Your task to perform on an android device: See recent photos Image 0: 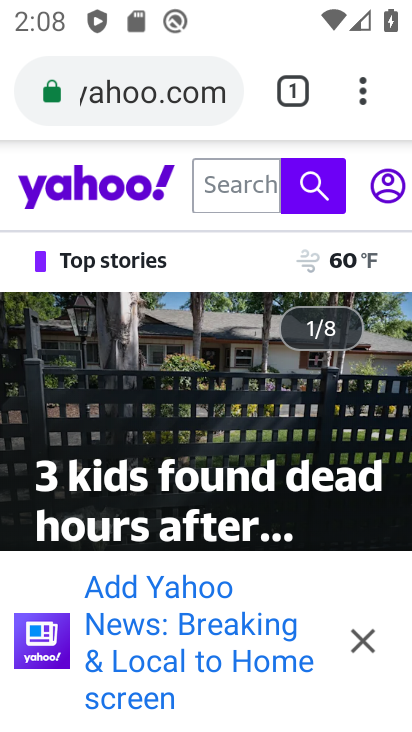
Step 0: press back button
Your task to perform on an android device: See recent photos Image 1: 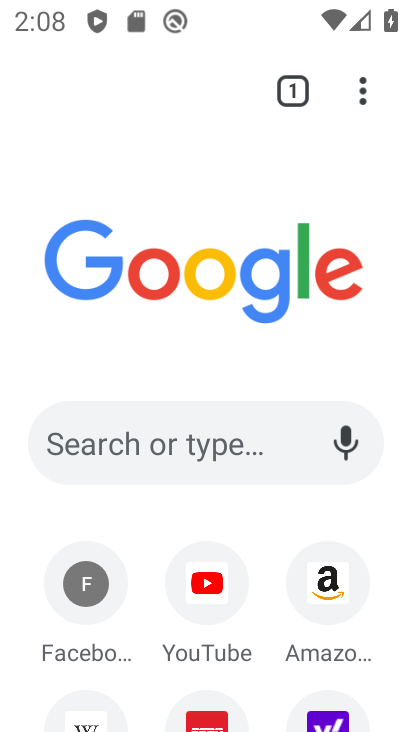
Step 1: press home button
Your task to perform on an android device: See recent photos Image 2: 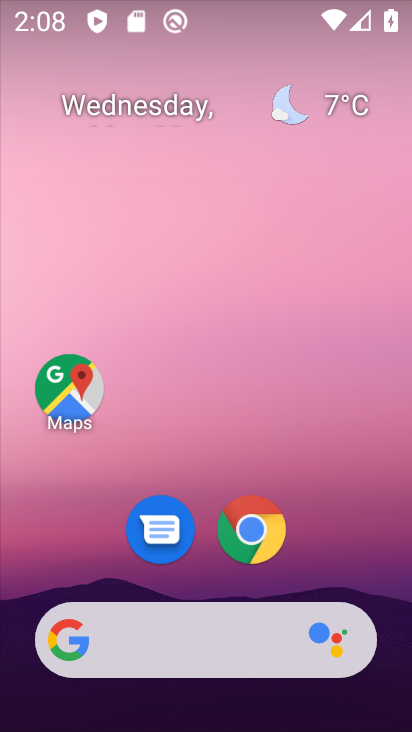
Step 2: drag from (33, 555) to (206, 185)
Your task to perform on an android device: See recent photos Image 3: 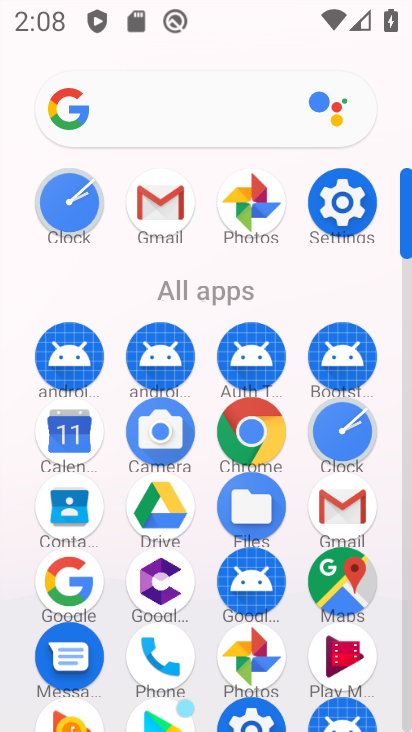
Step 3: click (245, 655)
Your task to perform on an android device: See recent photos Image 4: 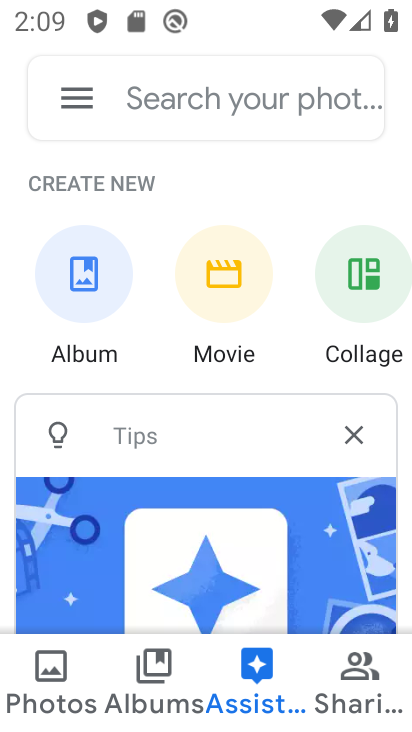
Step 4: click (47, 679)
Your task to perform on an android device: See recent photos Image 5: 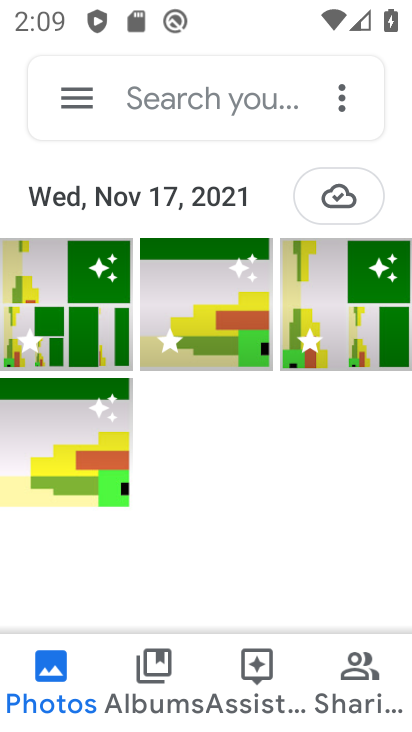
Step 5: task complete